Your task to perform on an android device: change the clock style Image 0: 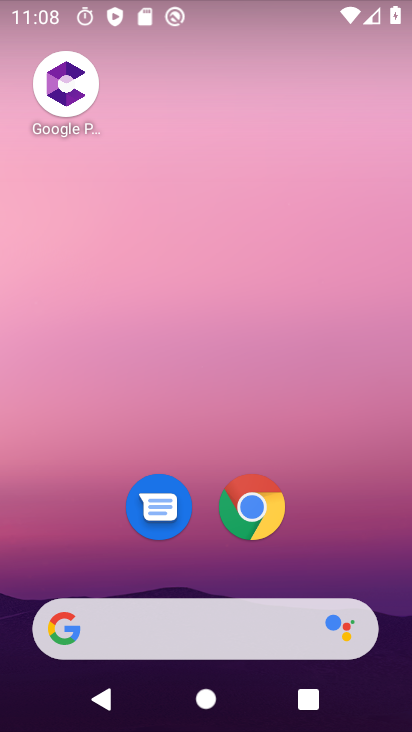
Step 0: drag from (396, 641) to (353, 83)
Your task to perform on an android device: change the clock style Image 1: 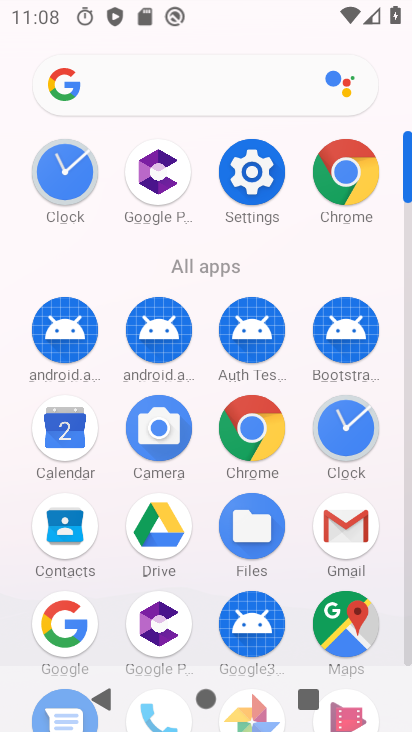
Step 1: click (350, 437)
Your task to perform on an android device: change the clock style Image 2: 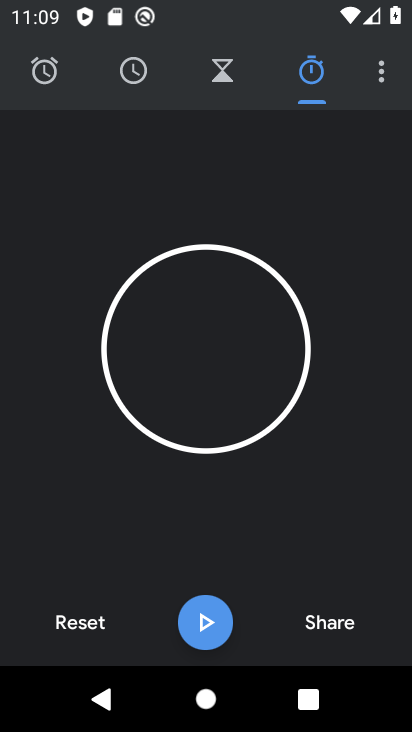
Step 2: click (385, 65)
Your task to perform on an android device: change the clock style Image 3: 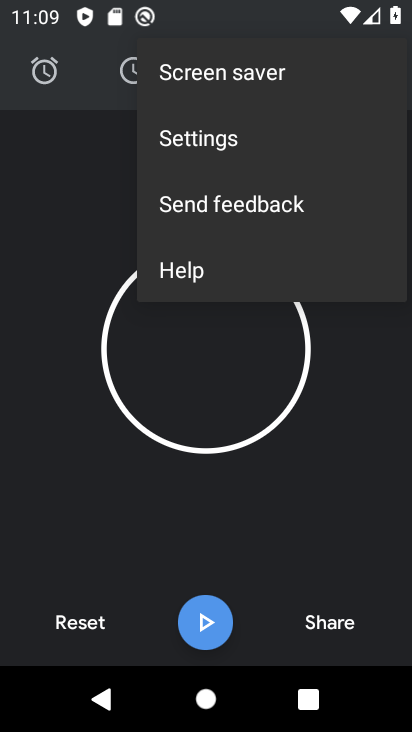
Step 3: click (239, 149)
Your task to perform on an android device: change the clock style Image 4: 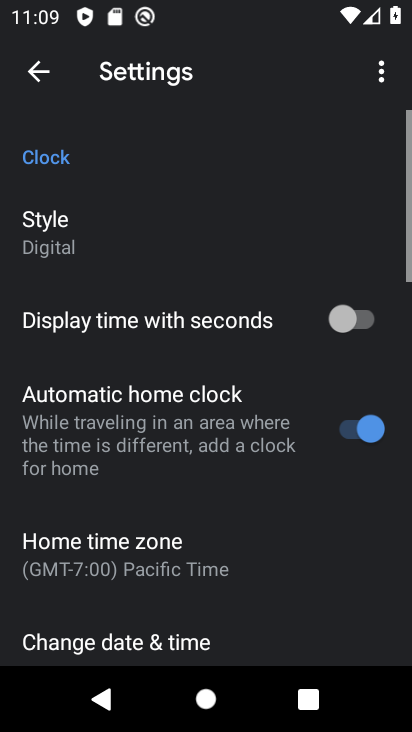
Step 4: click (86, 230)
Your task to perform on an android device: change the clock style Image 5: 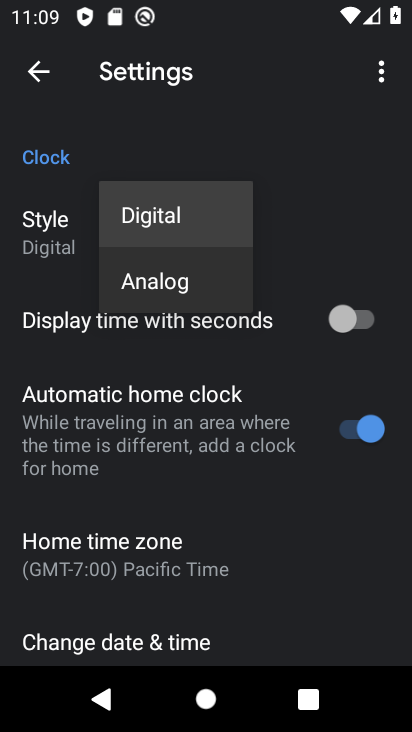
Step 5: click (145, 273)
Your task to perform on an android device: change the clock style Image 6: 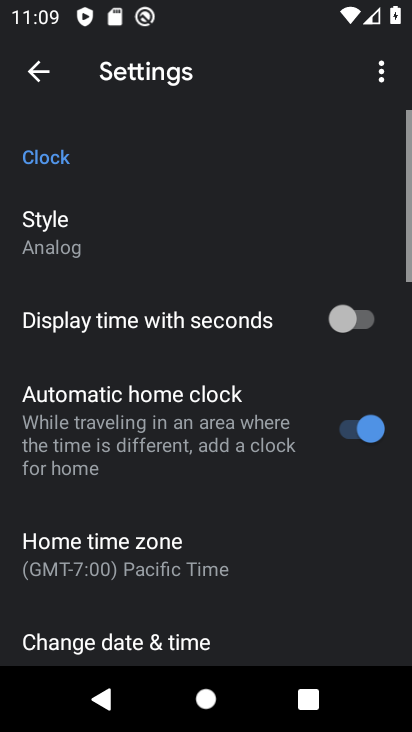
Step 6: task complete